Your task to perform on an android device: Search for a nightstand on IKEA. Image 0: 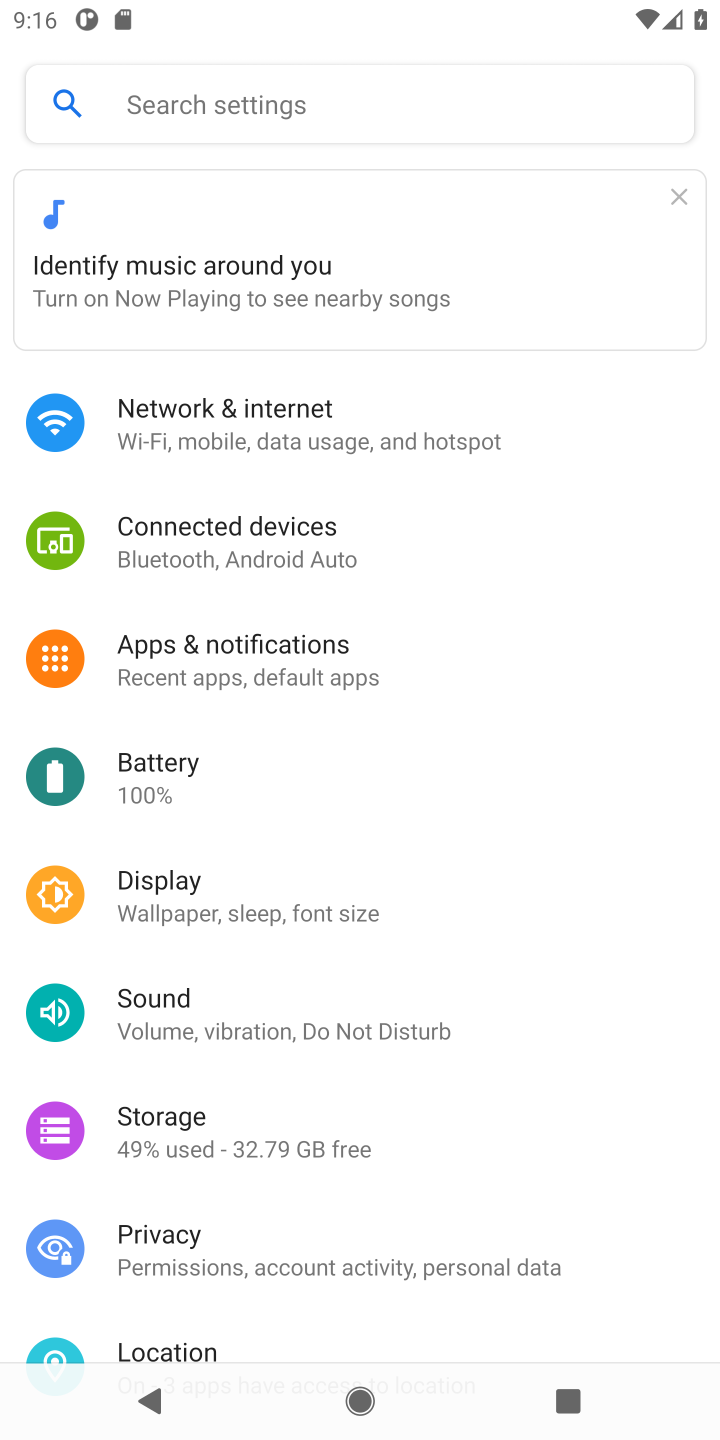
Step 0: press home button
Your task to perform on an android device: Search for a nightstand on IKEA. Image 1: 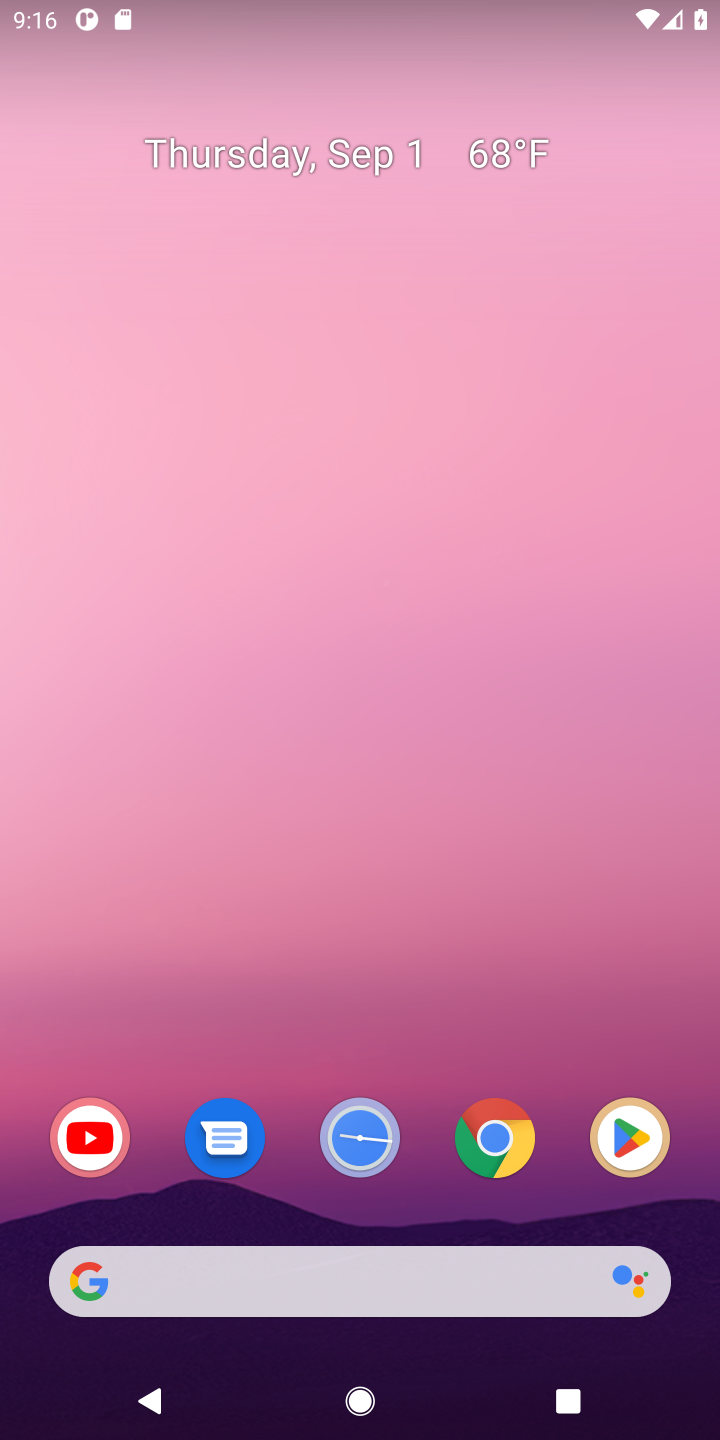
Step 1: click (332, 1261)
Your task to perform on an android device: Search for a nightstand on IKEA. Image 2: 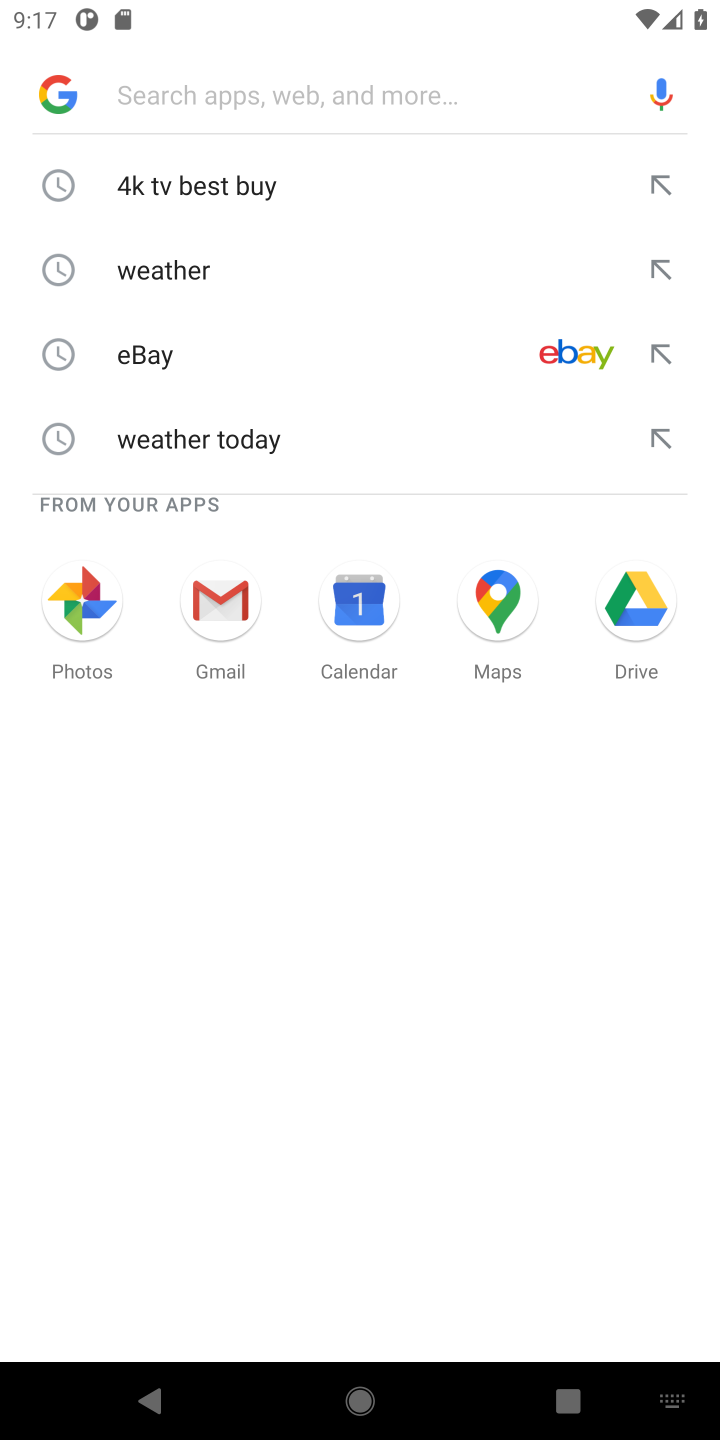
Step 2: type "nightstand on IKEA."
Your task to perform on an android device: Search for a nightstand on IKEA. Image 3: 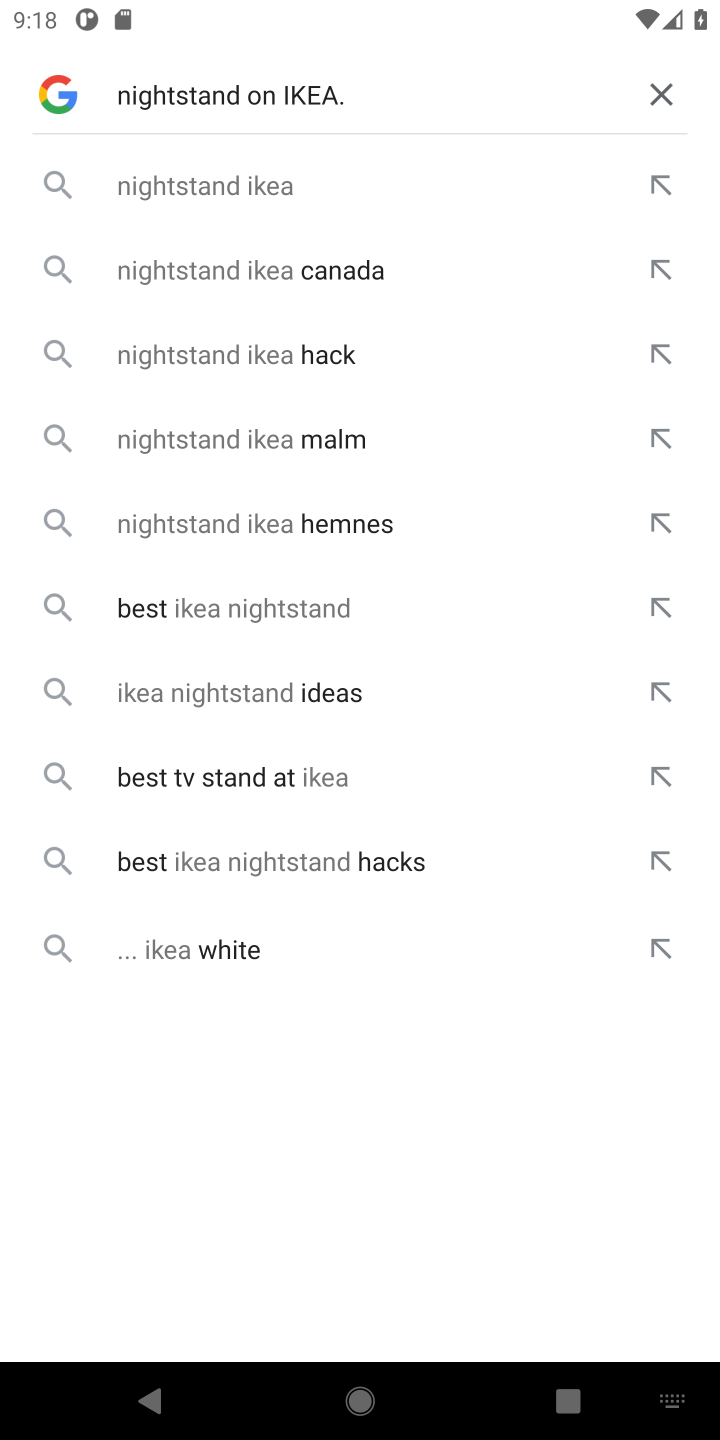
Step 3: click (229, 204)
Your task to perform on an android device: Search for a nightstand on IKEA. Image 4: 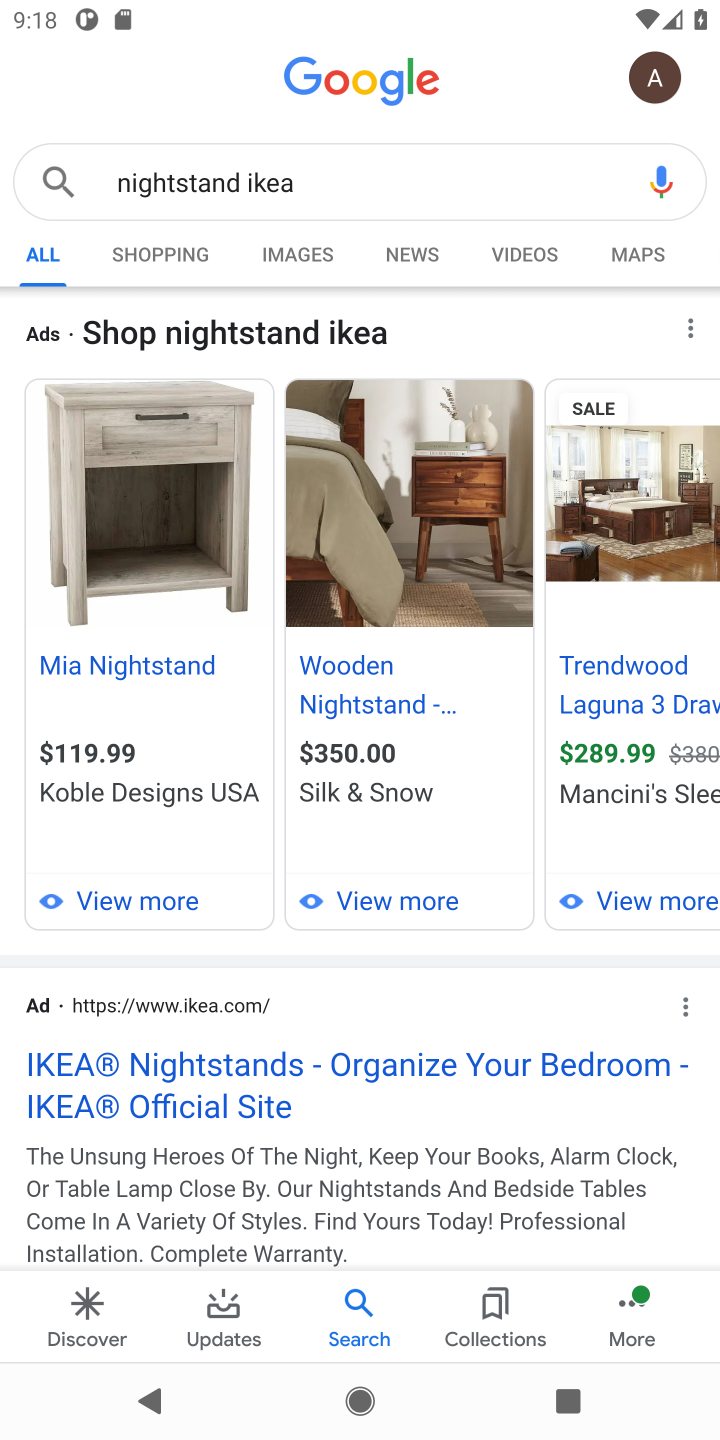
Step 4: click (407, 1060)
Your task to perform on an android device: Search for a nightstand on IKEA. Image 5: 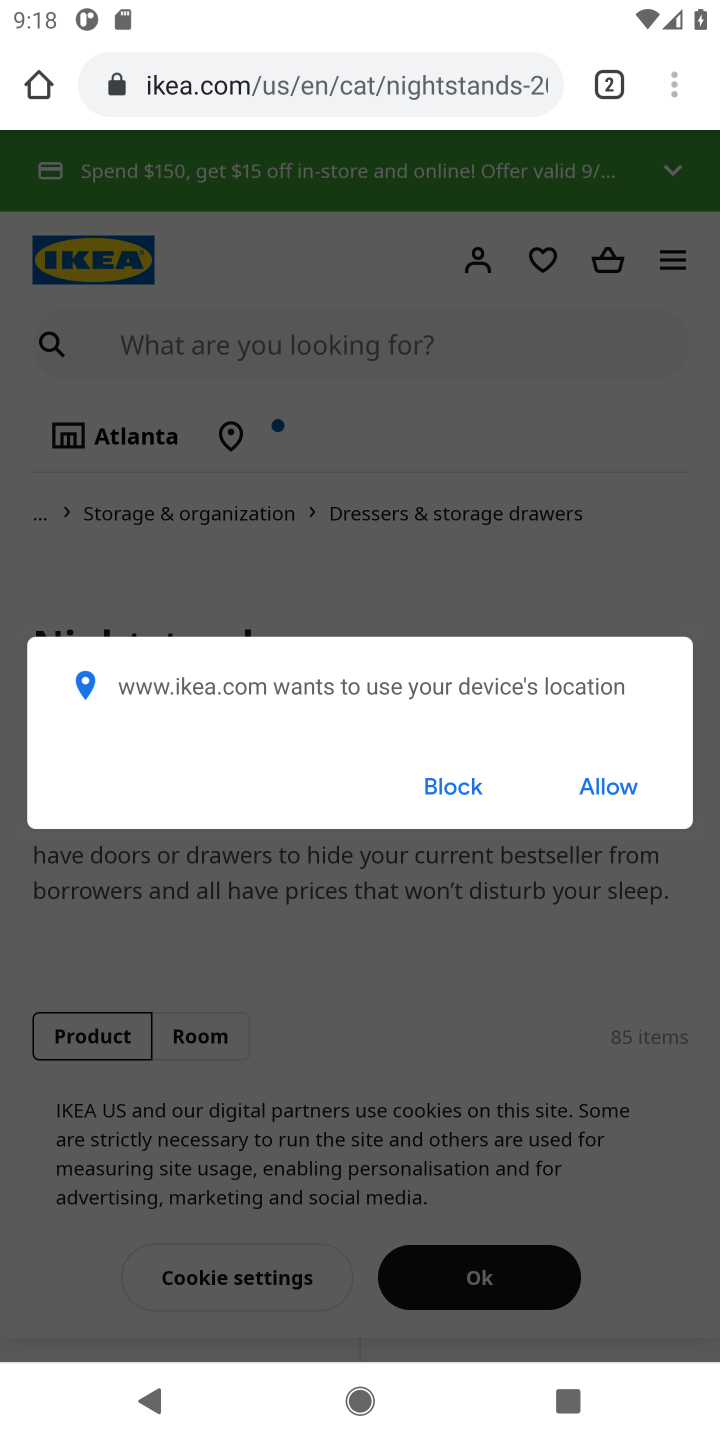
Step 5: task complete